Your task to perform on an android device: change text size in settings app Image 0: 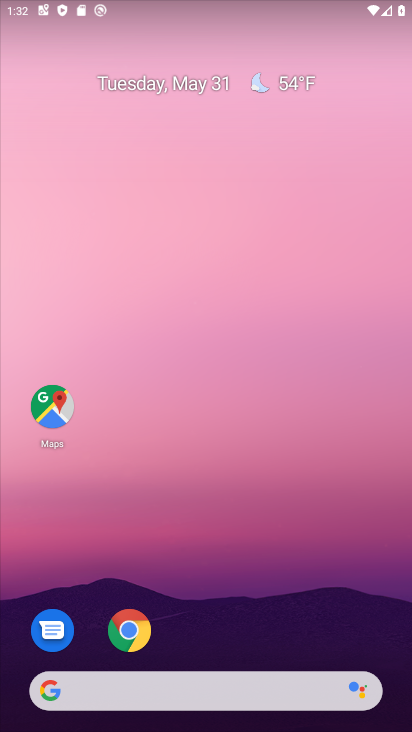
Step 0: drag from (247, 609) to (235, 6)
Your task to perform on an android device: change text size in settings app Image 1: 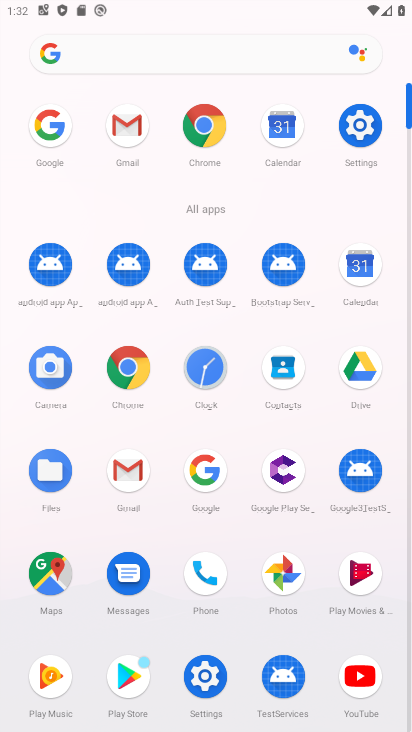
Step 1: click (360, 129)
Your task to perform on an android device: change text size in settings app Image 2: 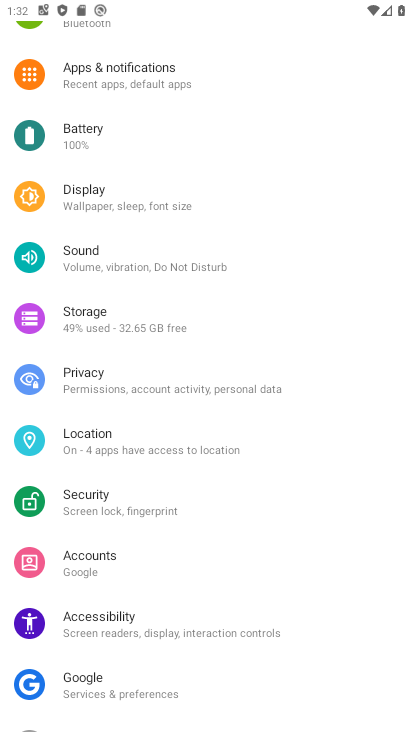
Step 2: click (132, 202)
Your task to perform on an android device: change text size in settings app Image 3: 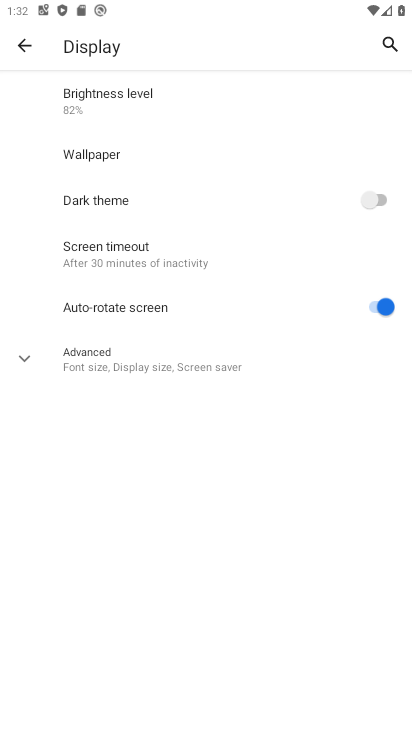
Step 3: click (87, 358)
Your task to perform on an android device: change text size in settings app Image 4: 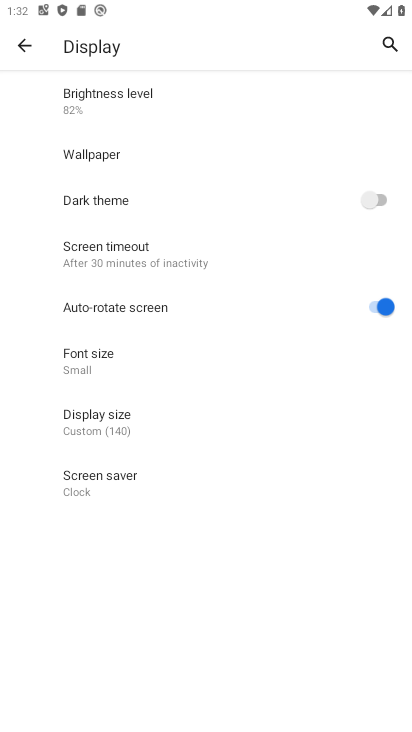
Step 4: click (101, 366)
Your task to perform on an android device: change text size in settings app Image 5: 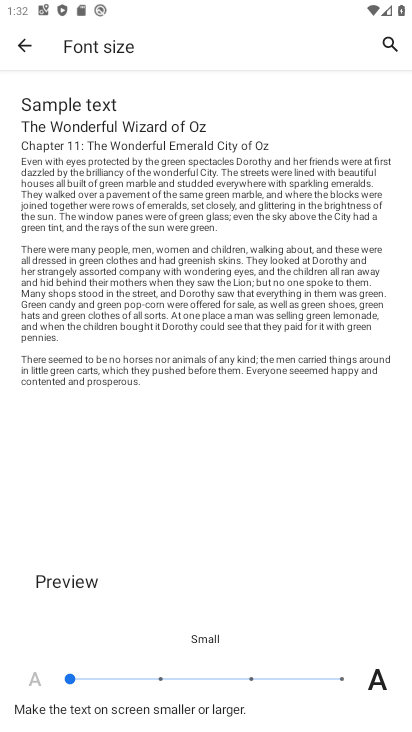
Step 5: task complete